Your task to perform on an android device: find snoozed emails in the gmail app Image 0: 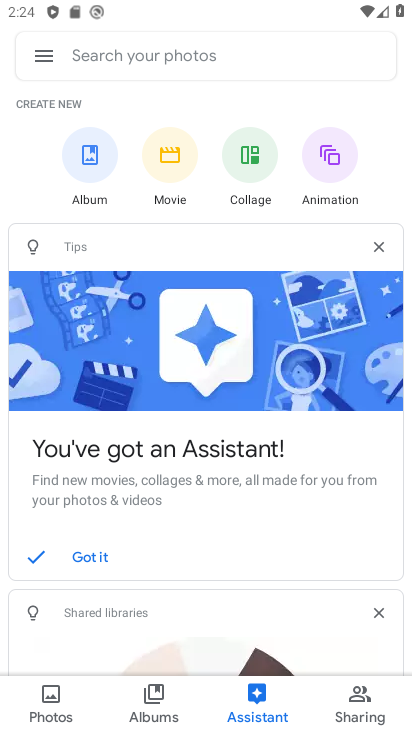
Step 0: press home button
Your task to perform on an android device: find snoozed emails in the gmail app Image 1: 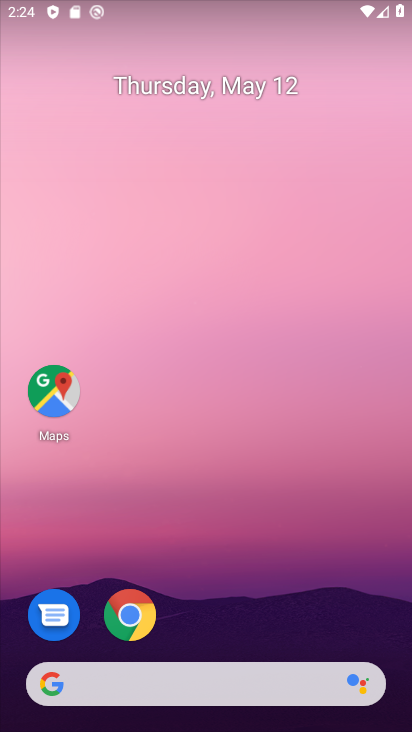
Step 1: drag from (54, 559) to (410, 114)
Your task to perform on an android device: find snoozed emails in the gmail app Image 2: 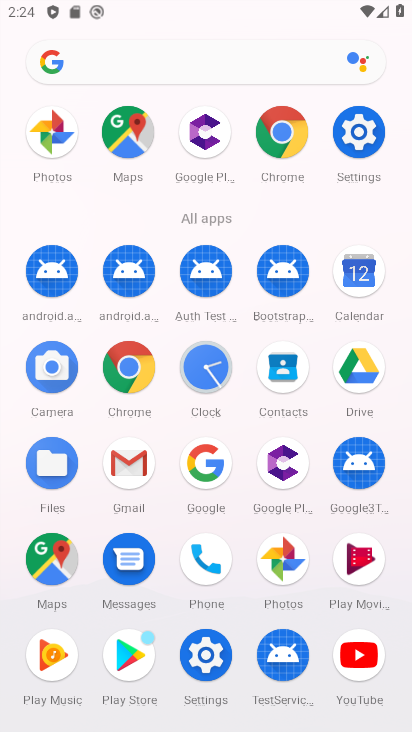
Step 2: click (125, 465)
Your task to perform on an android device: find snoozed emails in the gmail app Image 3: 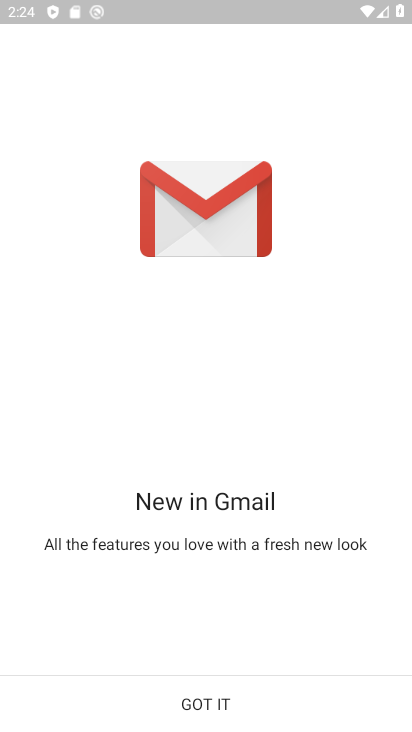
Step 3: click (257, 698)
Your task to perform on an android device: find snoozed emails in the gmail app Image 4: 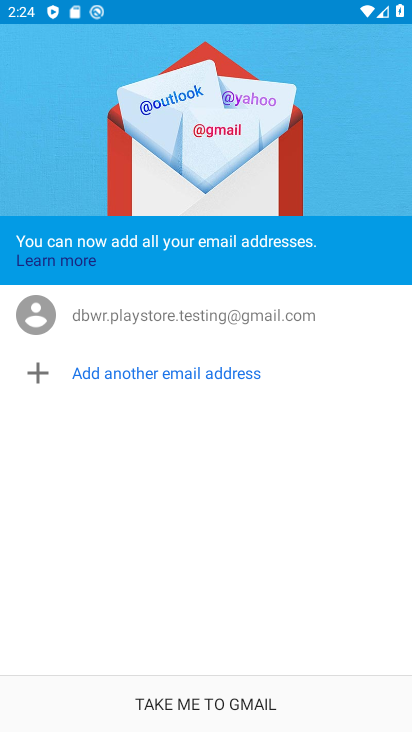
Step 4: drag from (220, 533) to (210, 575)
Your task to perform on an android device: find snoozed emails in the gmail app Image 5: 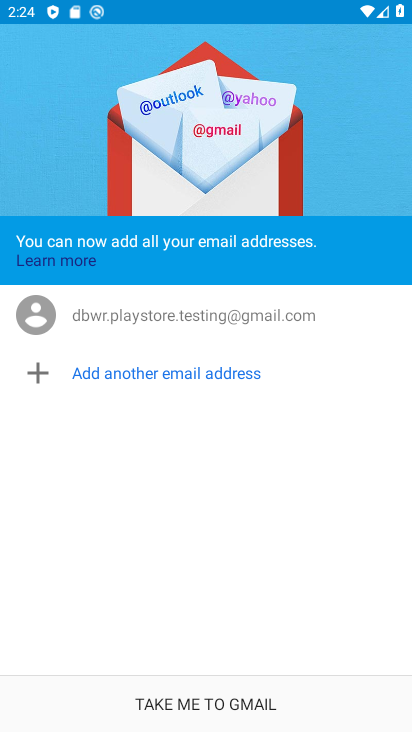
Step 5: click (191, 706)
Your task to perform on an android device: find snoozed emails in the gmail app Image 6: 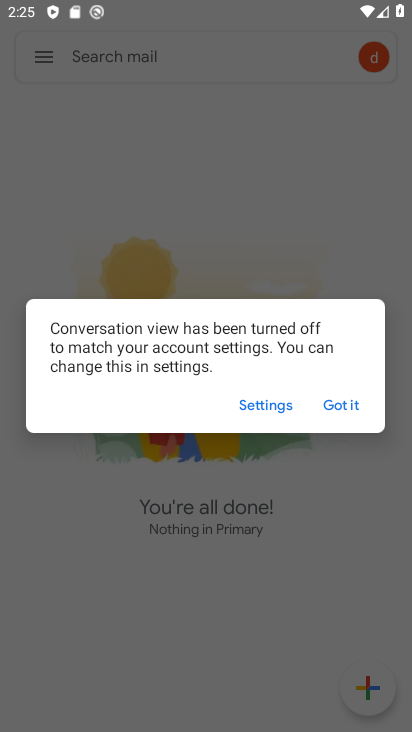
Step 6: click (331, 404)
Your task to perform on an android device: find snoozed emails in the gmail app Image 7: 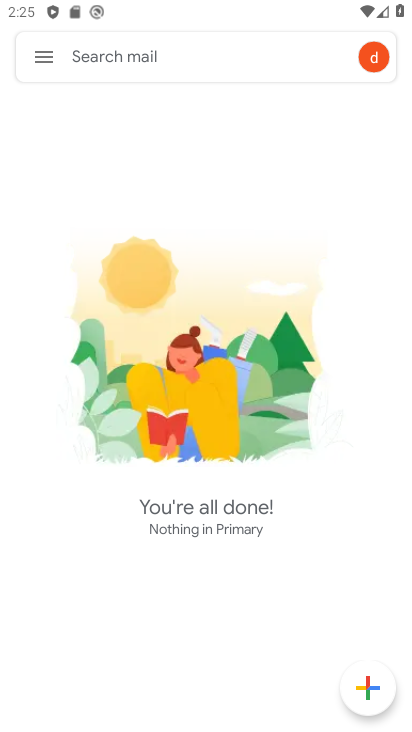
Step 7: click (39, 50)
Your task to perform on an android device: find snoozed emails in the gmail app Image 8: 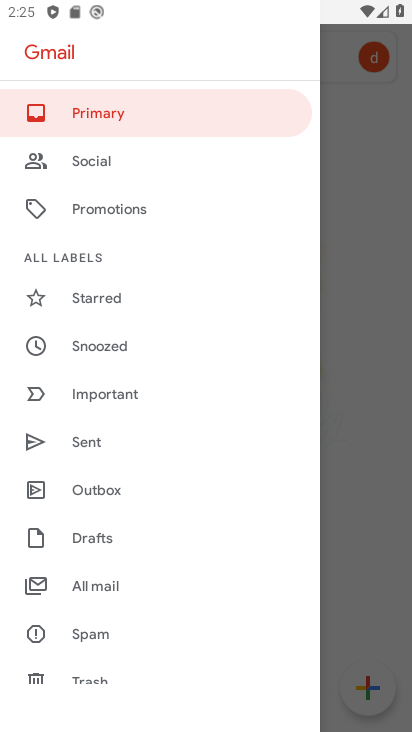
Step 8: click (124, 344)
Your task to perform on an android device: find snoozed emails in the gmail app Image 9: 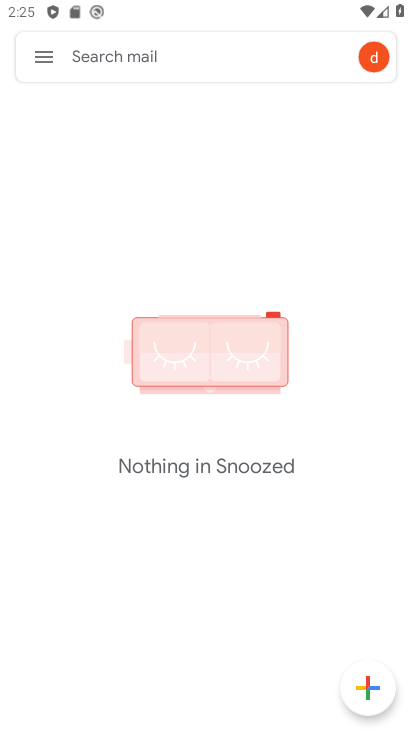
Step 9: task complete